Your task to perform on an android device: Go to CNN.com Image 0: 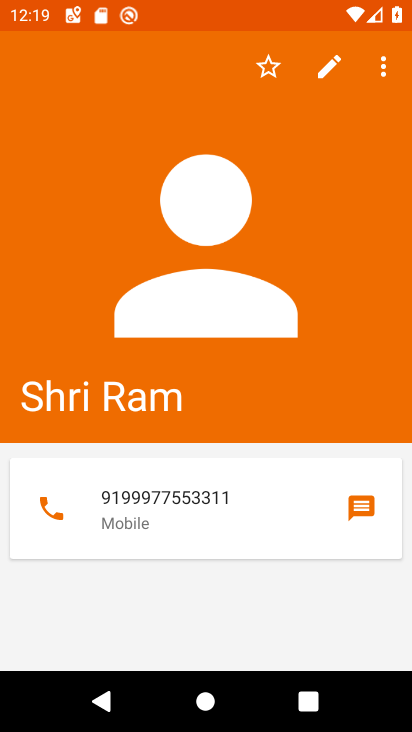
Step 0: press home button
Your task to perform on an android device: Go to CNN.com Image 1: 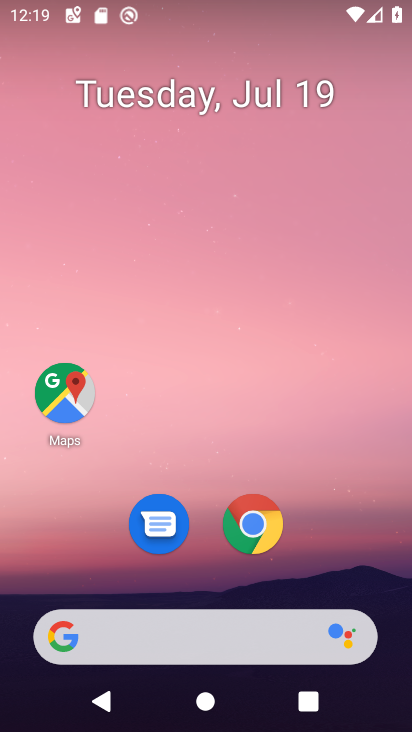
Step 1: click (245, 651)
Your task to perform on an android device: Go to CNN.com Image 2: 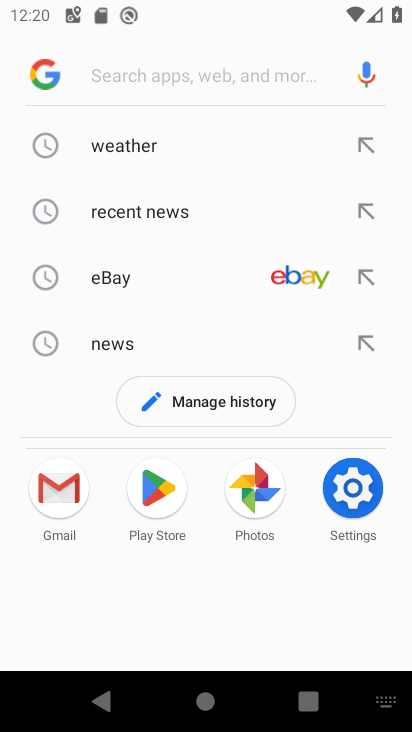
Step 2: type "cnn.com"
Your task to perform on an android device: Go to CNN.com Image 3: 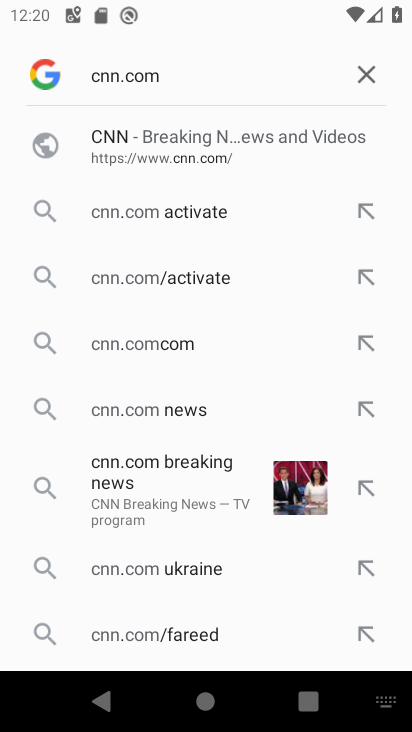
Step 3: click (147, 148)
Your task to perform on an android device: Go to CNN.com Image 4: 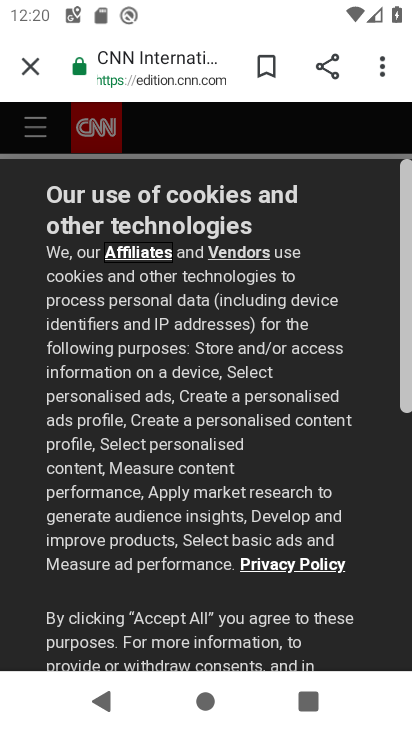
Step 4: drag from (263, 602) to (211, 226)
Your task to perform on an android device: Go to CNN.com Image 5: 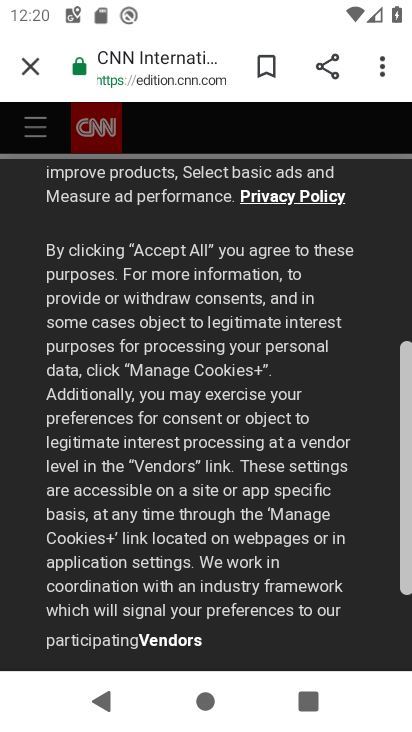
Step 5: drag from (248, 572) to (225, 218)
Your task to perform on an android device: Go to CNN.com Image 6: 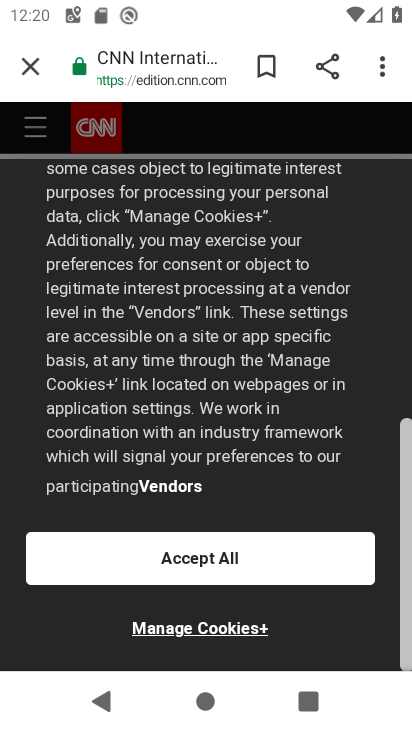
Step 6: click (272, 558)
Your task to perform on an android device: Go to CNN.com Image 7: 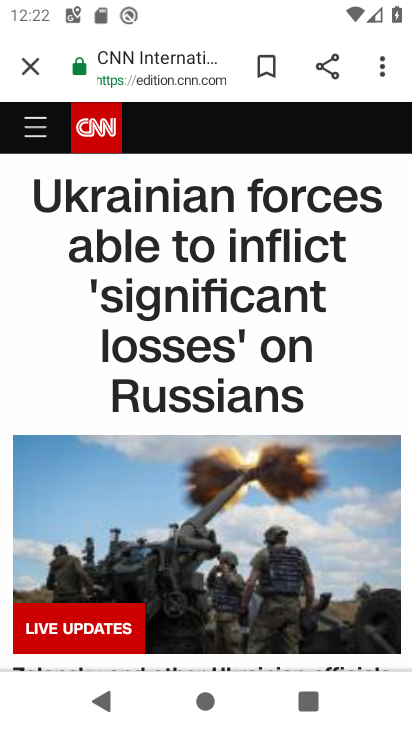
Step 7: task complete